Your task to perform on an android device: Do I have any events tomorrow? Image 0: 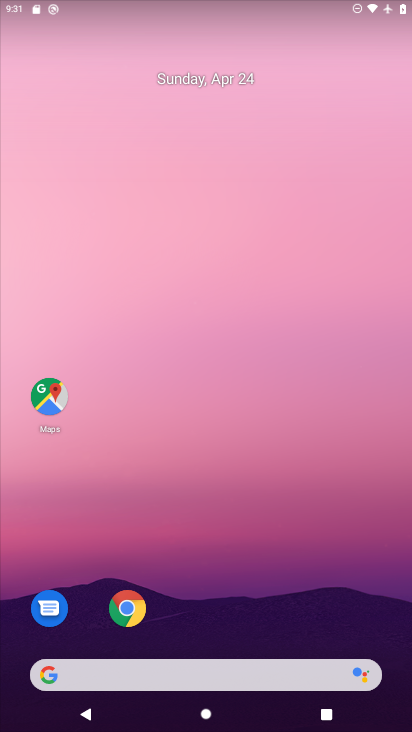
Step 0: drag from (221, 637) to (195, 241)
Your task to perform on an android device: Do I have any events tomorrow? Image 1: 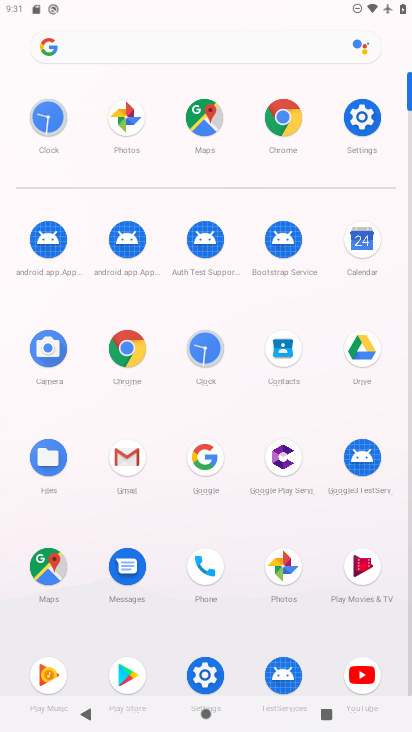
Step 1: click (362, 261)
Your task to perform on an android device: Do I have any events tomorrow? Image 2: 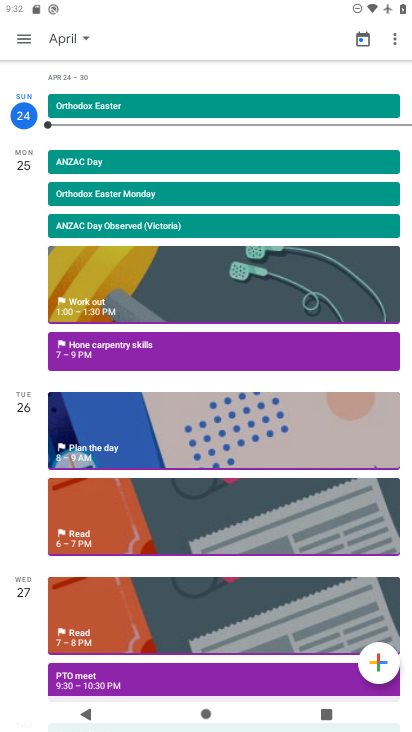
Step 2: click (27, 33)
Your task to perform on an android device: Do I have any events tomorrow? Image 3: 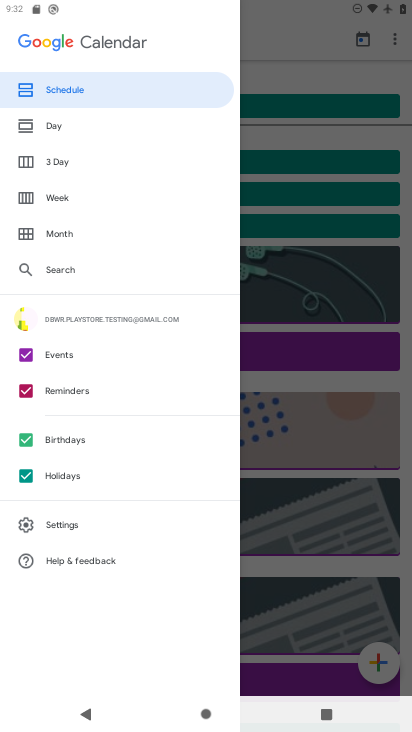
Step 3: click (283, 38)
Your task to perform on an android device: Do I have any events tomorrow? Image 4: 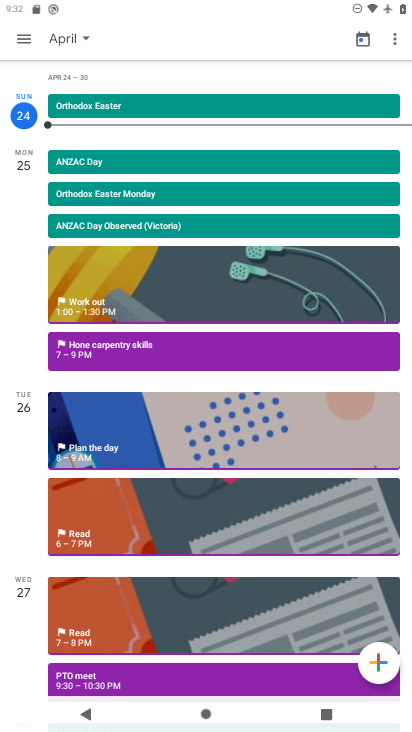
Step 4: click (75, 40)
Your task to perform on an android device: Do I have any events tomorrow? Image 5: 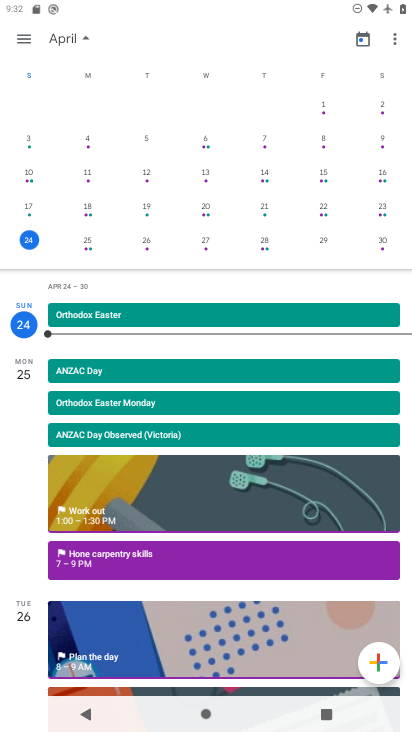
Step 5: click (91, 245)
Your task to perform on an android device: Do I have any events tomorrow? Image 6: 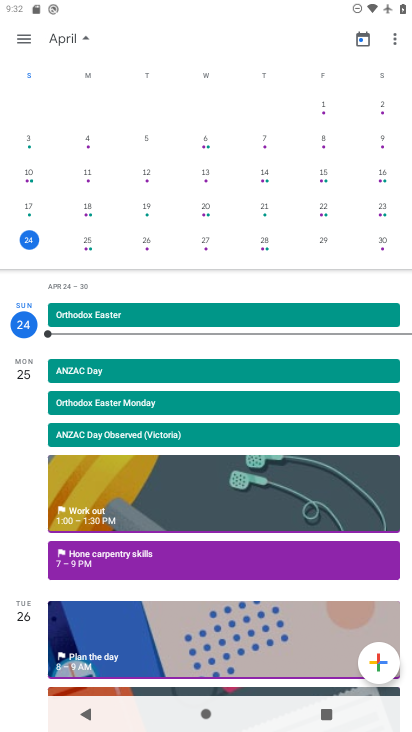
Step 6: click (91, 245)
Your task to perform on an android device: Do I have any events tomorrow? Image 7: 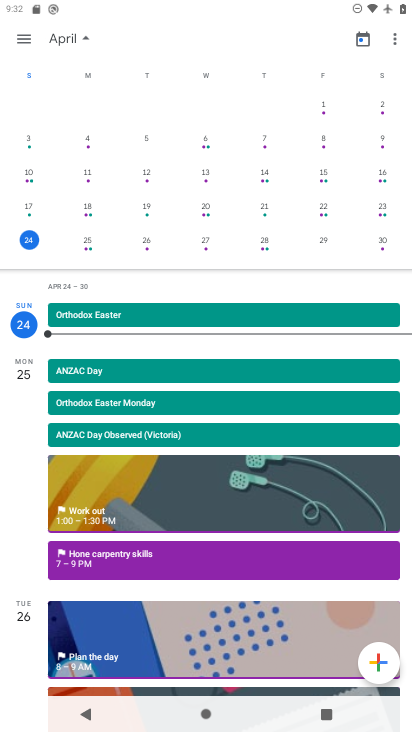
Step 7: click (87, 253)
Your task to perform on an android device: Do I have any events tomorrow? Image 8: 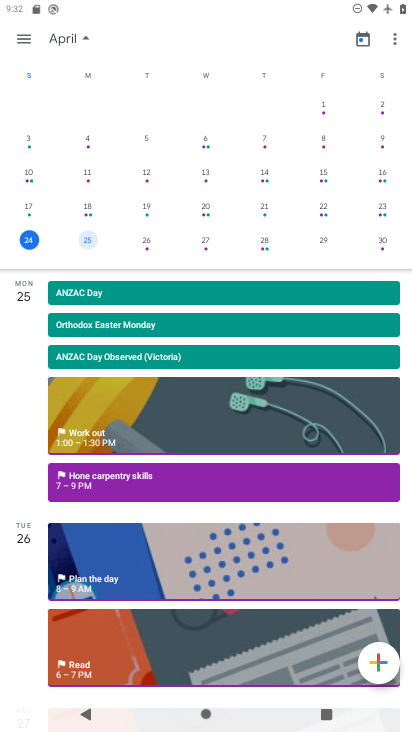
Step 8: click (92, 235)
Your task to perform on an android device: Do I have any events tomorrow? Image 9: 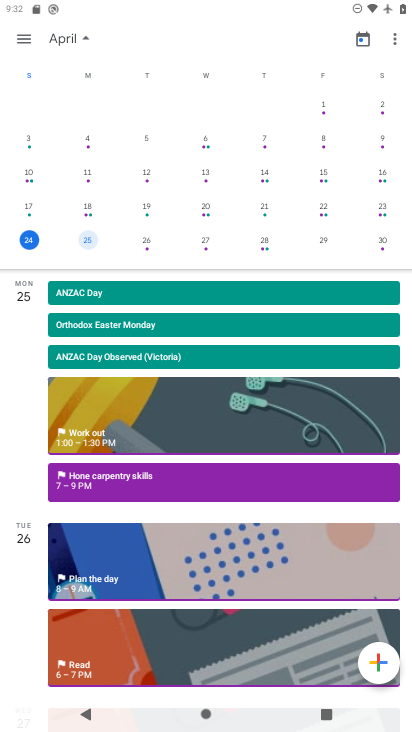
Step 9: click (88, 233)
Your task to perform on an android device: Do I have any events tomorrow? Image 10: 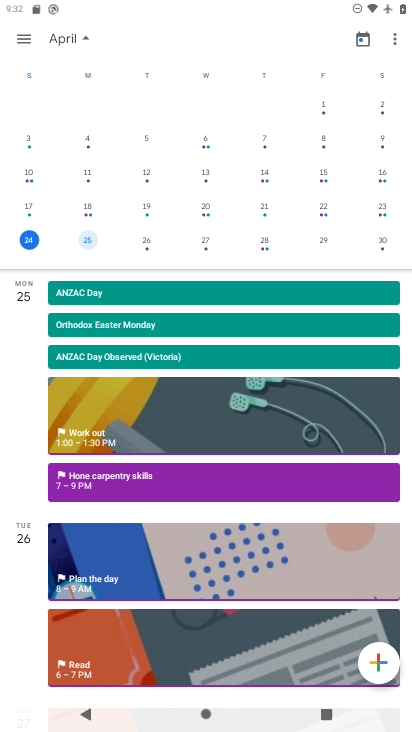
Step 10: task complete